Your task to perform on an android device: delete browsing data in the chrome app Image 0: 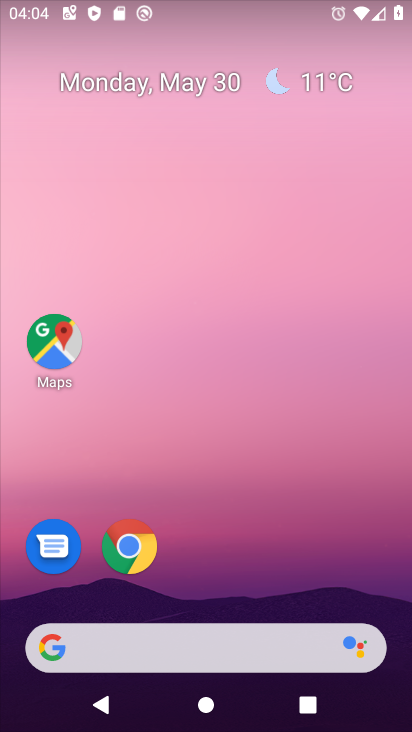
Step 0: click (242, 604)
Your task to perform on an android device: delete browsing data in the chrome app Image 1: 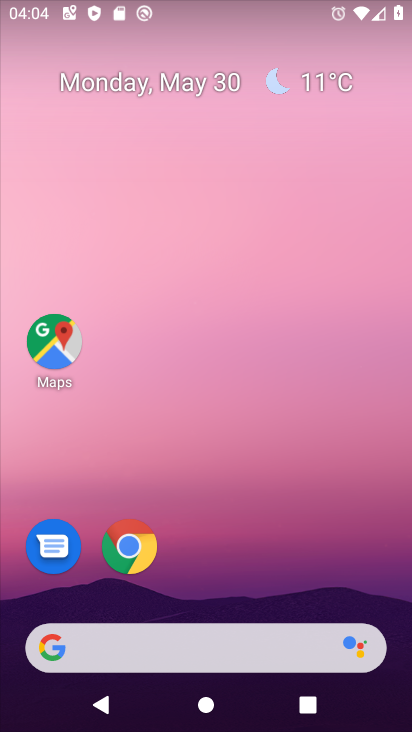
Step 1: drag from (254, 379) to (262, 69)
Your task to perform on an android device: delete browsing data in the chrome app Image 2: 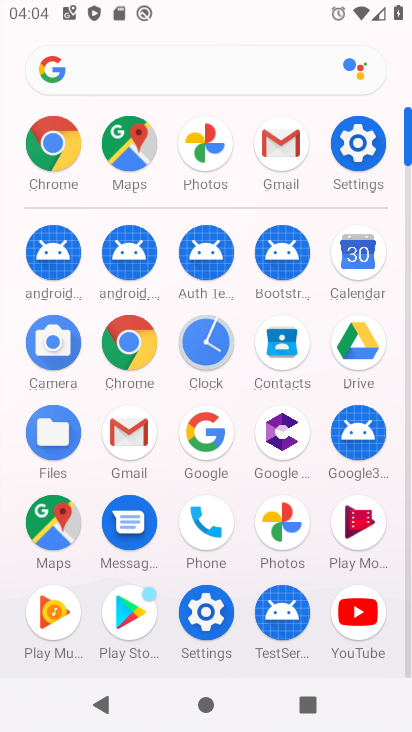
Step 2: click (131, 344)
Your task to perform on an android device: delete browsing data in the chrome app Image 3: 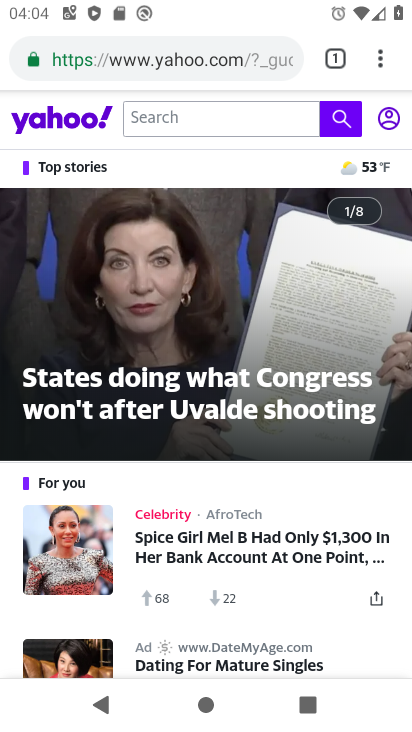
Step 3: click (386, 50)
Your task to perform on an android device: delete browsing data in the chrome app Image 4: 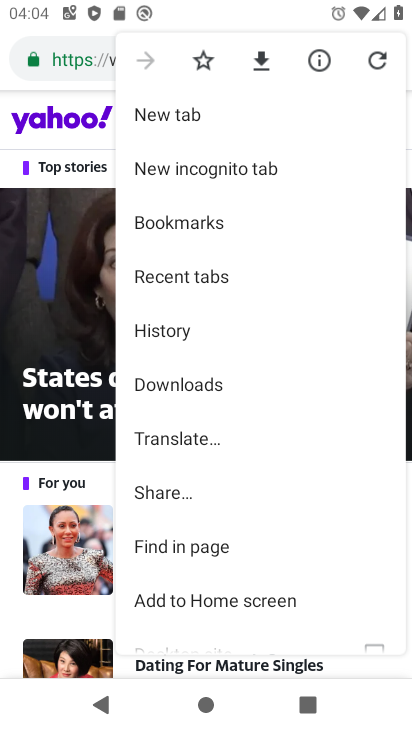
Step 4: click (211, 330)
Your task to perform on an android device: delete browsing data in the chrome app Image 5: 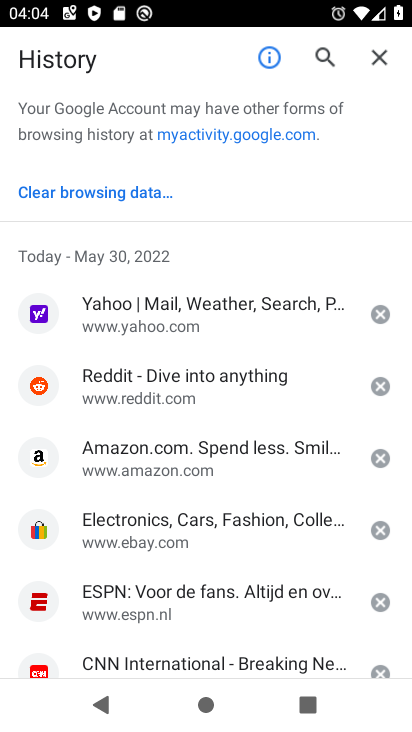
Step 5: click (125, 194)
Your task to perform on an android device: delete browsing data in the chrome app Image 6: 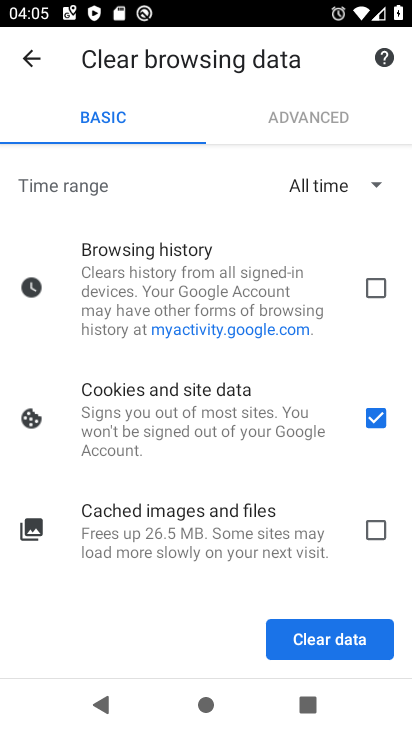
Step 6: click (379, 285)
Your task to perform on an android device: delete browsing data in the chrome app Image 7: 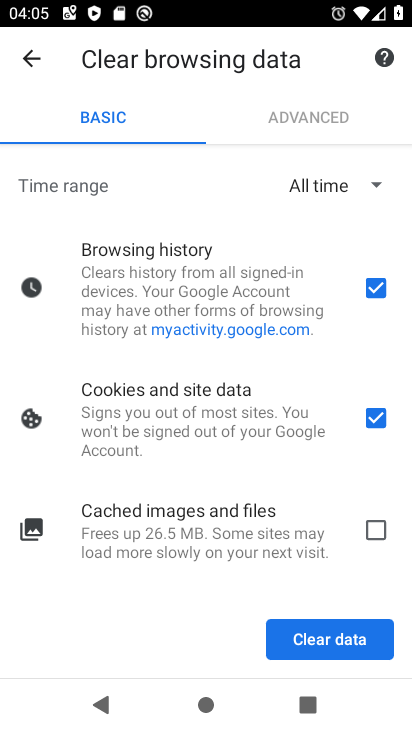
Step 7: click (372, 530)
Your task to perform on an android device: delete browsing data in the chrome app Image 8: 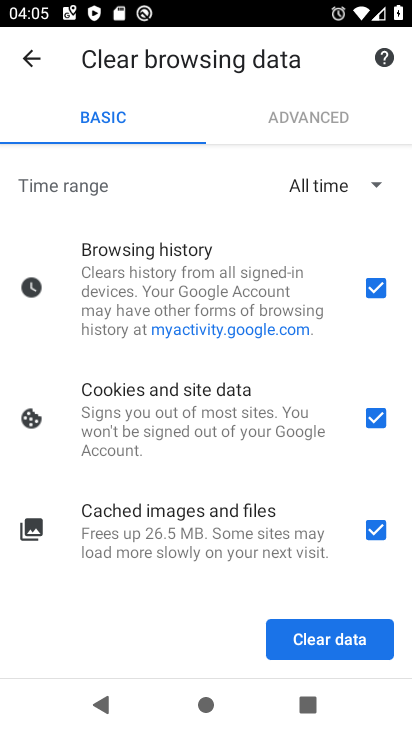
Step 8: click (330, 642)
Your task to perform on an android device: delete browsing data in the chrome app Image 9: 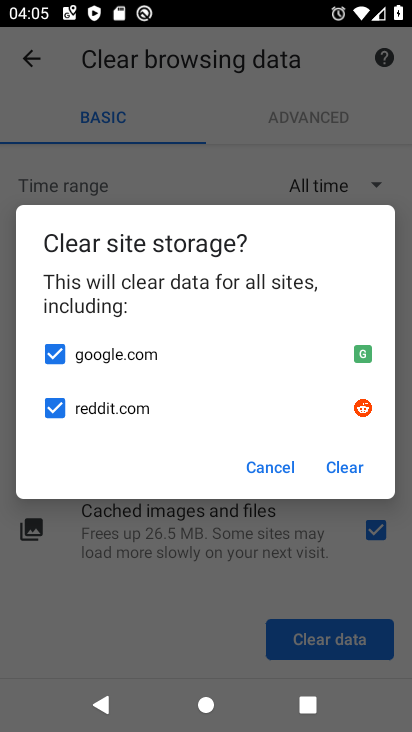
Step 9: click (348, 471)
Your task to perform on an android device: delete browsing data in the chrome app Image 10: 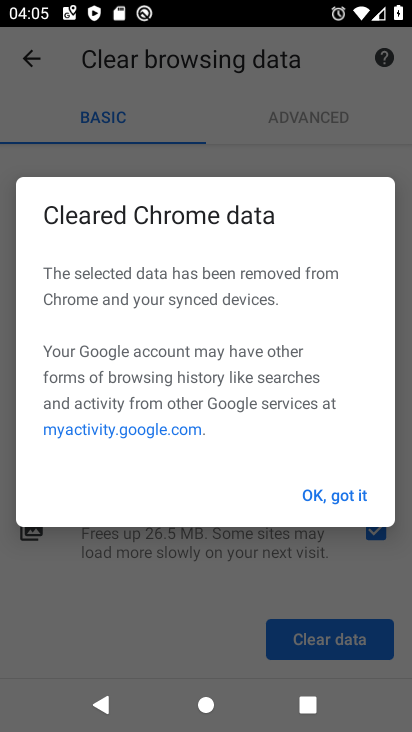
Step 10: task complete